Your task to perform on an android device: all mails in gmail Image 0: 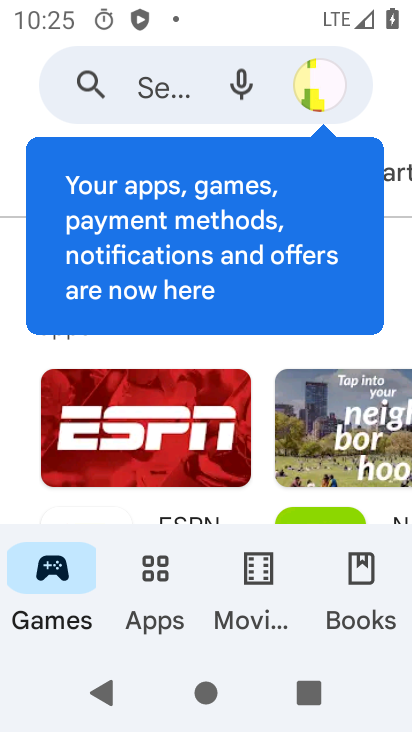
Step 0: press back button
Your task to perform on an android device: all mails in gmail Image 1: 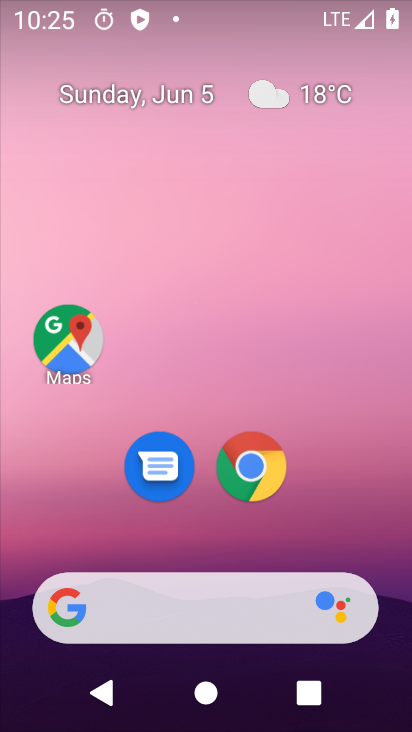
Step 1: drag from (349, 487) to (264, 154)
Your task to perform on an android device: all mails in gmail Image 2: 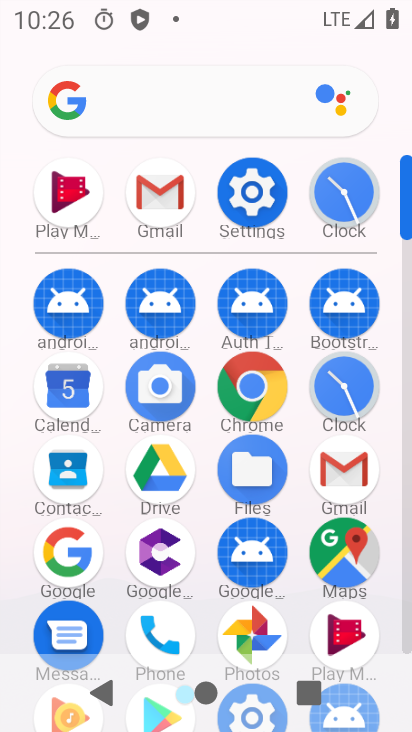
Step 2: click (158, 189)
Your task to perform on an android device: all mails in gmail Image 3: 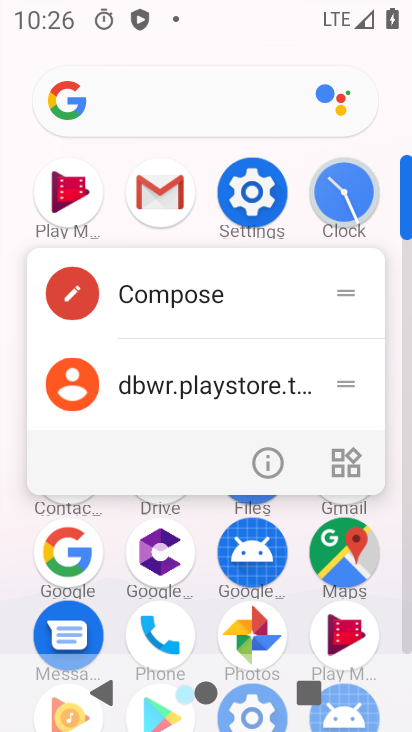
Step 3: click (158, 189)
Your task to perform on an android device: all mails in gmail Image 4: 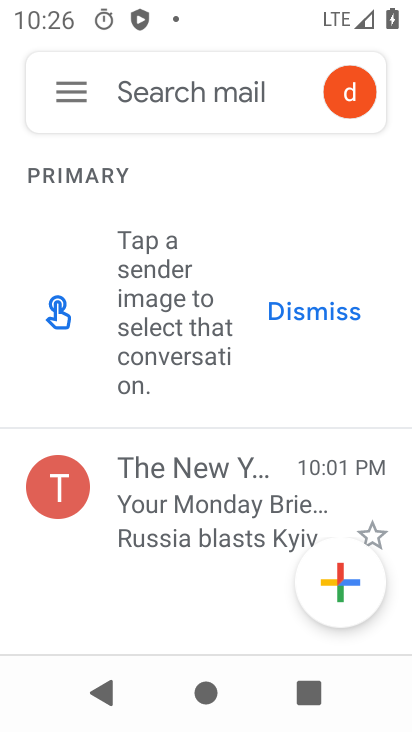
Step 4: click (66, 83)
Your task to perform on an android device: all mails in gmail Image 5: 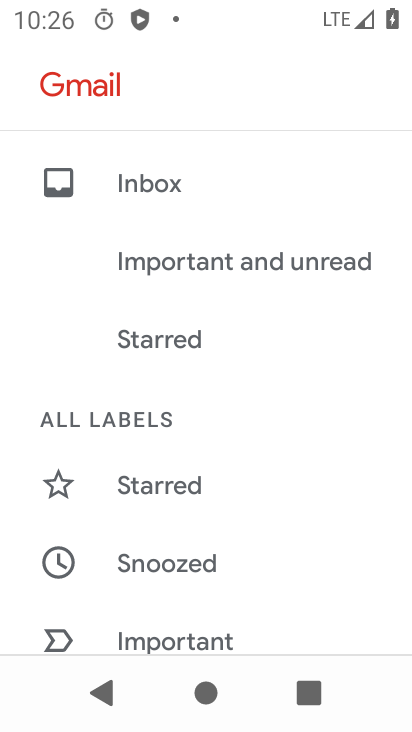
Step 5: drag from (176, 460) to (197, 349)
Your task to perform on an android device: all mails in gmail Image 6: 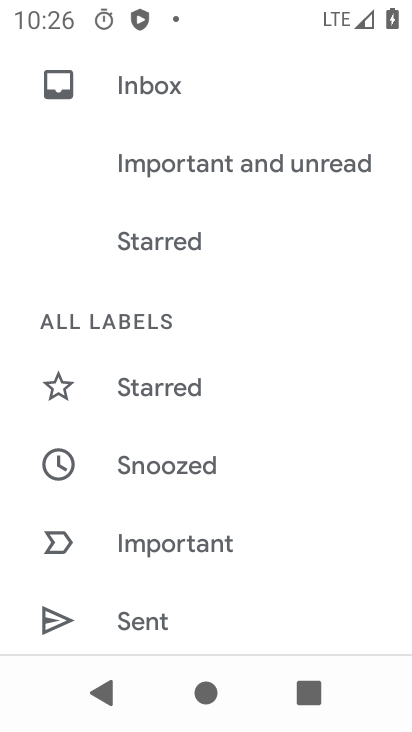
Step 6: drag from (195, 488) to (230, 383)
Your task to perform on an android device: all mails in gmail Image 7: 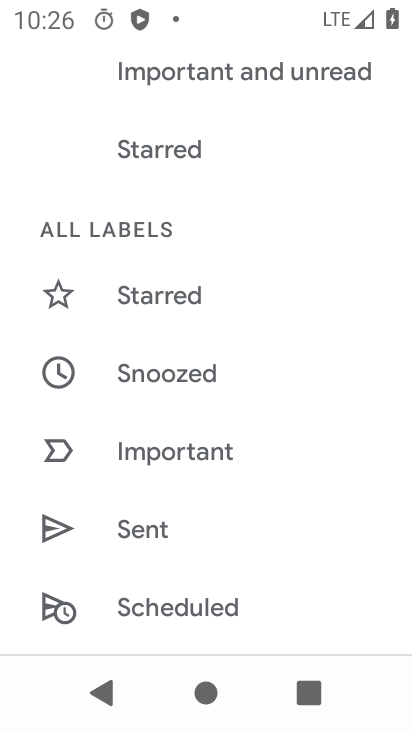
Step 7: drag from (177, 479) to (227, 367)
Your task to perform on an android device: all mails in gmail Image 8: 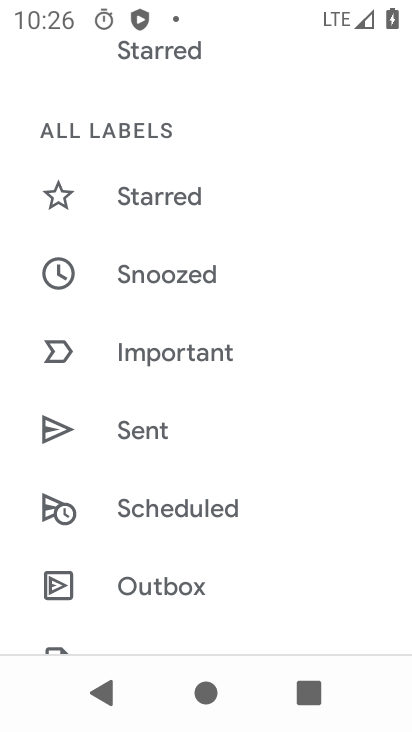
Step 8: drag from (166, 462) to (192, 373)
Your task to perform on an android device: all mails in gmail Image 9: 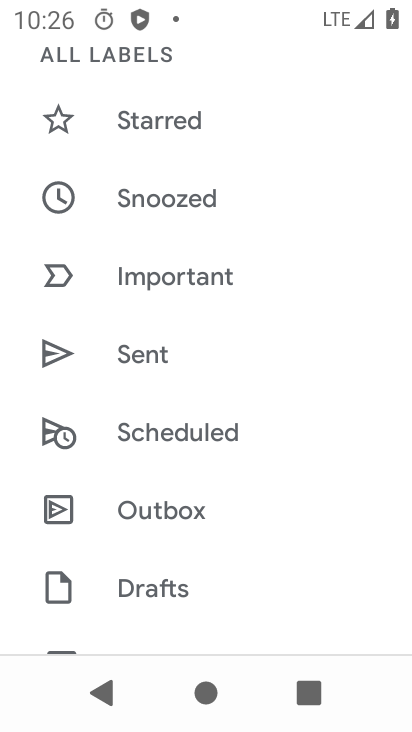
Step 9: drag from (176, 548) to (207, 456)
Your task to perform on an android device: all mails in gmail Image 10: 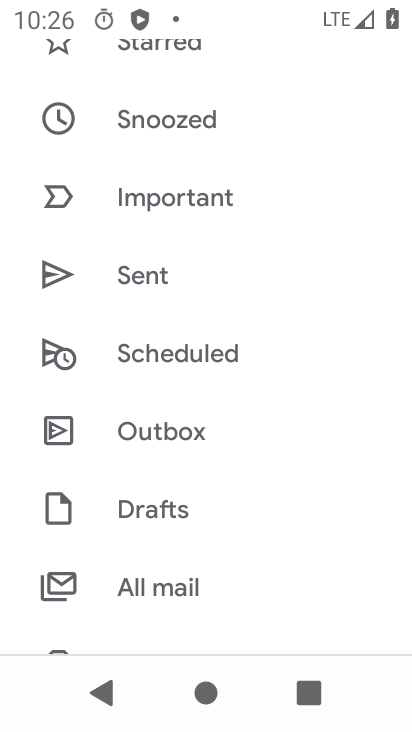
Step 10: click (188, 584)
Your task to perform on an android device: all mails in gmail Image 11: 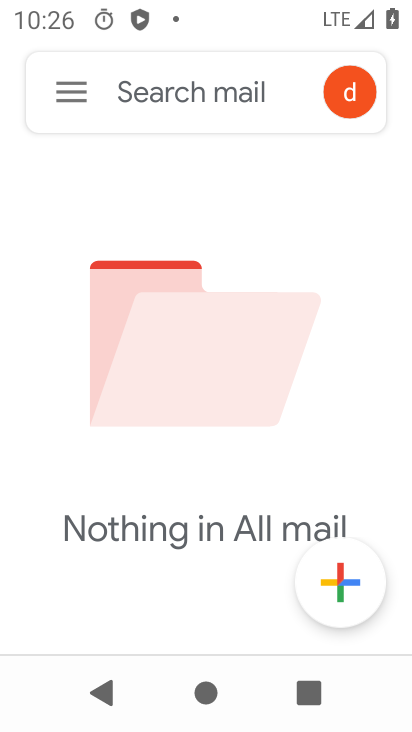
Step 11: task complete